Your task to perform on an android device: turn notification dots on Image 0: 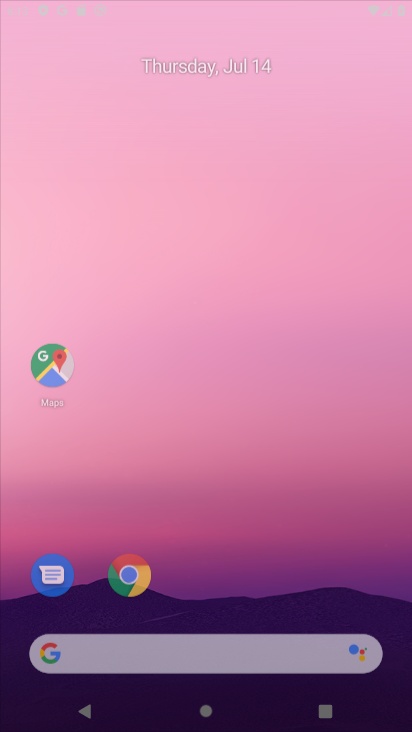
Step 0: click (270, 288)
Your task to perform on an android device: turn notification dots on Image 1: 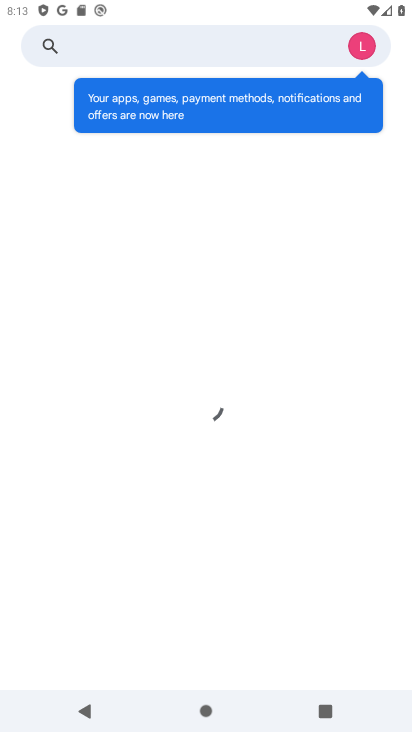
Step 1: press home button
Your task to perform on an android device: turn notification dots on Image 2: 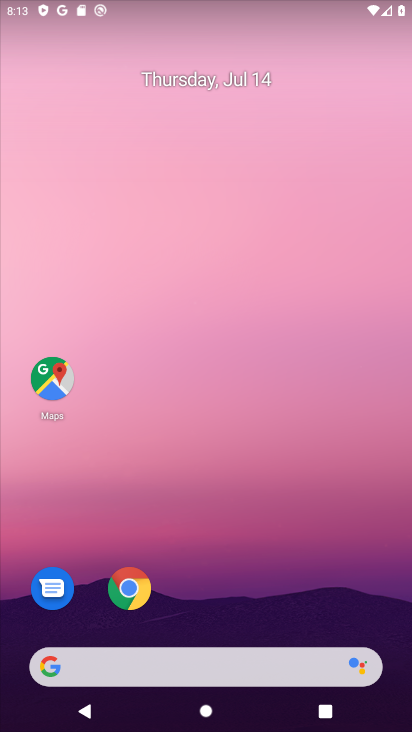
Step 2: drag from (261, 670) to (166, 59)
Your task to perform on an android device: turn notification dots on Image 3: 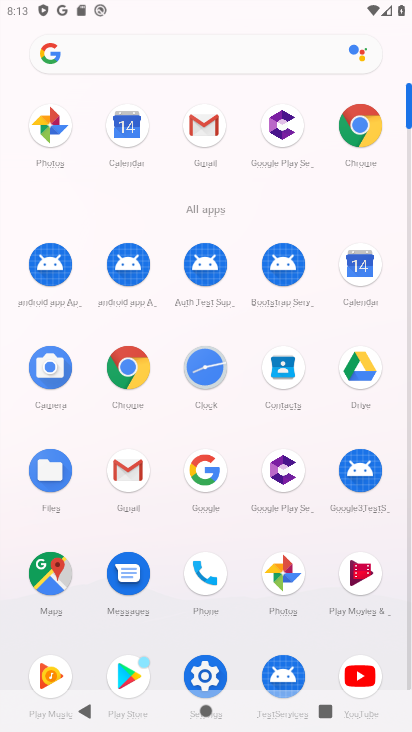
Step 3: click (207, 673)
Your task to perform on an android device: turn notification dots on Image 4: 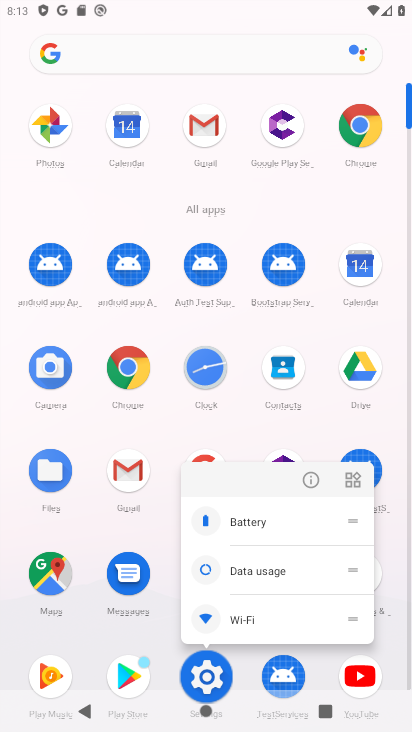
Step 4: click (207, 673)
Your task to perform on an android device: turn notification dots on Image 5: 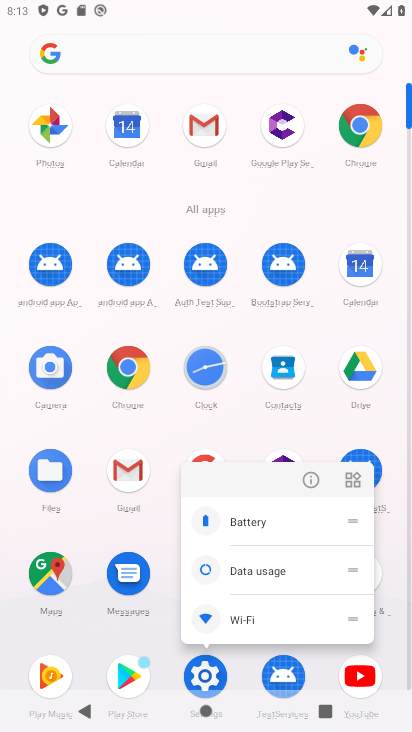
Step 5: click (205, 667)
Your task to perform on an android device: turn notification dots on Image 6: 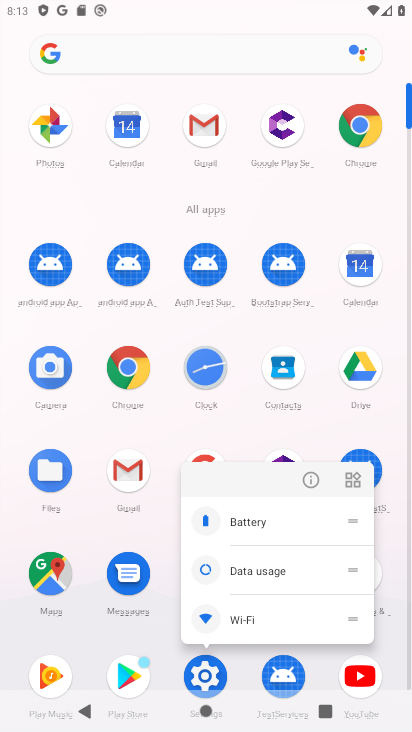
Step 6: click (202, 667)
Your task to perform on an android device: turn notification dots on Image 7: 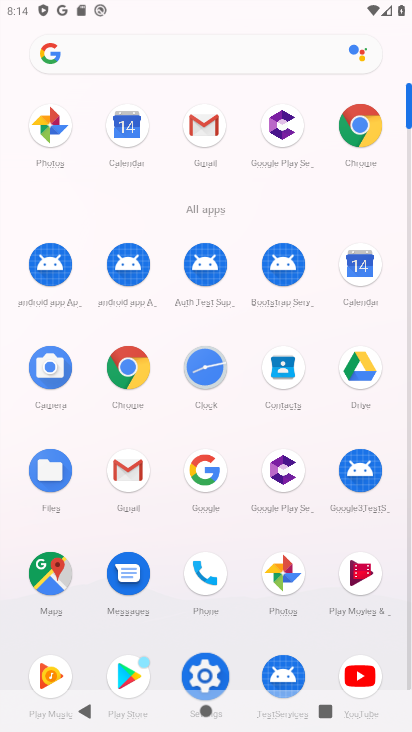
Step 7: click (202, 667)
Your task to perform on an android device: turn notification dots on Image 8: 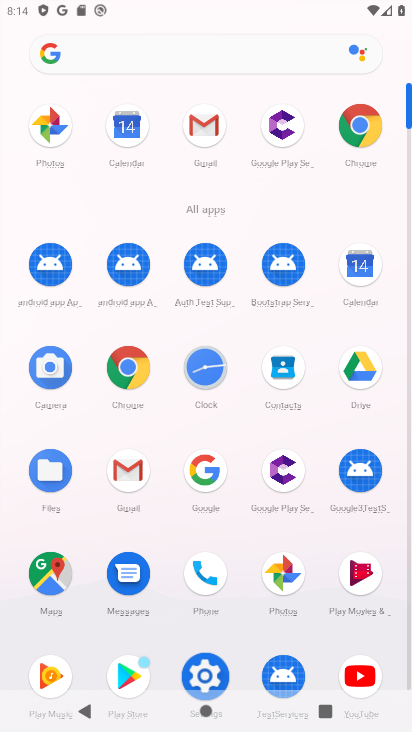
Step 8: click (203, 659)
Your task to perform on an android device: turn notification dots on Image 9: 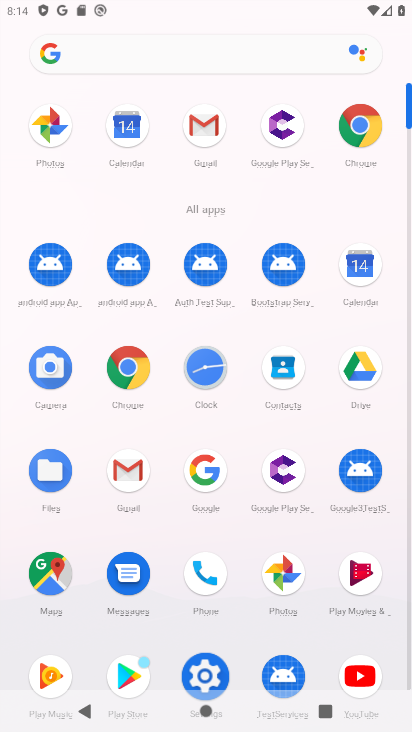
Step 9: click (203, 658)
Your task to perform on an android device: turn notification dots on Image 10: 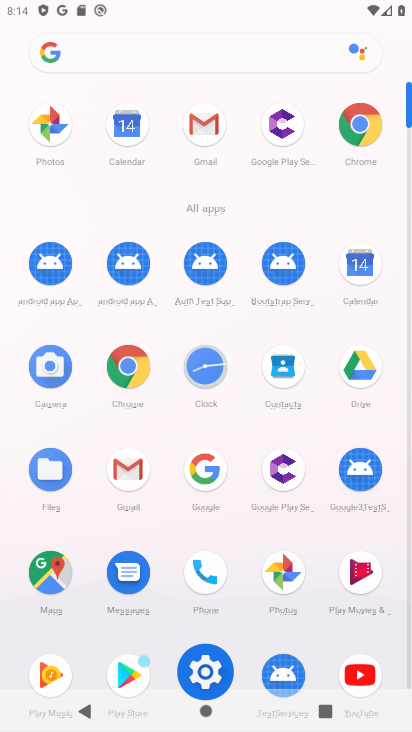
Step 10: click (203, 662)
Your task to perform on an android device: turn notification dots on Image 11: 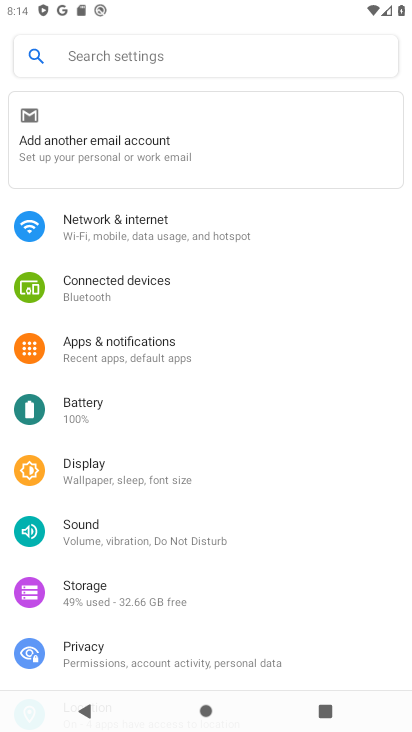
Step 11: click (109, 352)
Your task to perform on an android device: turn notification dots on Image 12: 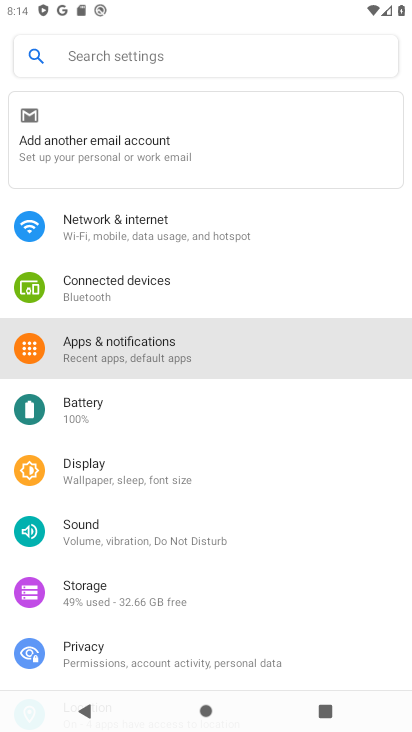
Step 12: click (119, 343)
Your task to perform on an android device: turn notification dots on Image 13: 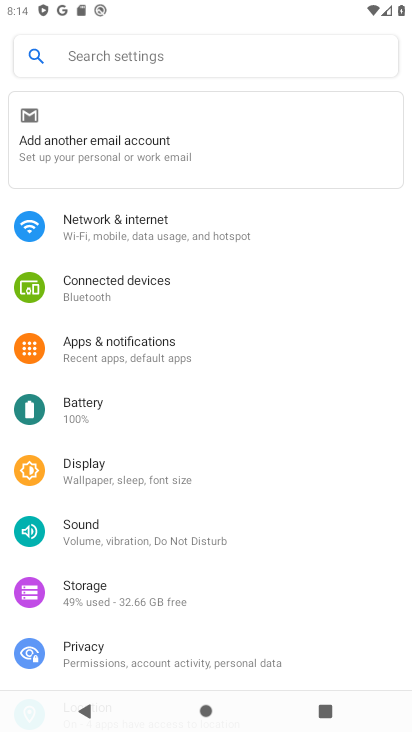
Step 13: click (127, 341)
Your task to perform on an android device: turn notification dots on Image 14: 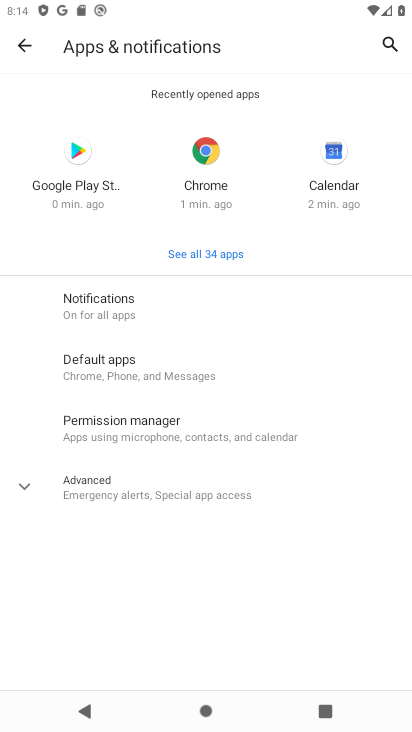
Step 14: click (88, 305)
Your task to perform on an android device: turn notification dots on Image 15: 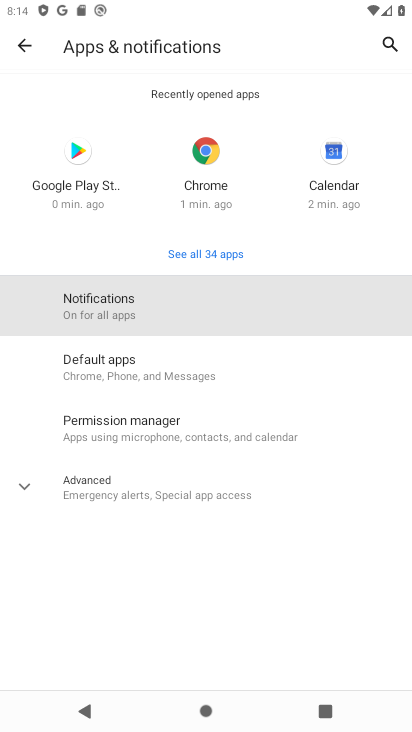
Step 15: click (101, 302)
Your task to perform on an android device: turn notification dots on Image 16: 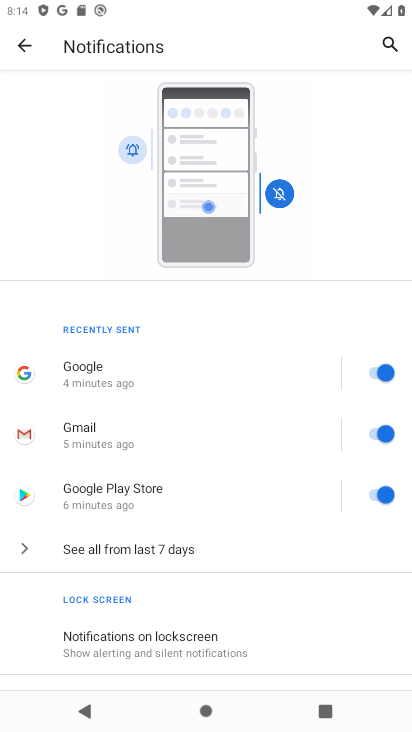
Step 16: drag from (150, 634) to (122, 205)
Your task to perform on an android device: turn notification dots on Image 17: 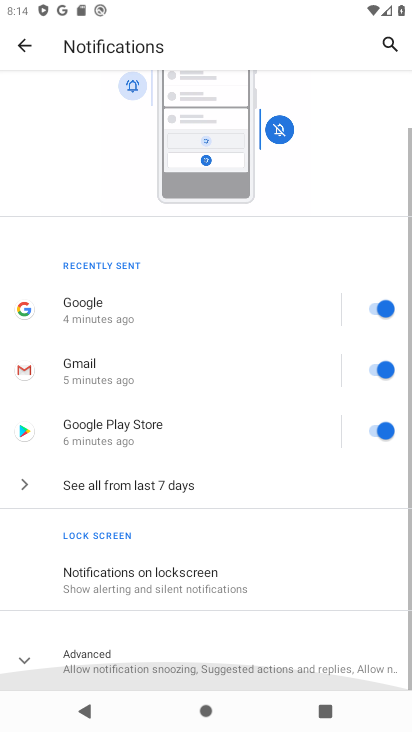
Step 17: drag from (231, 479) to (201, 215)
Your task to perform on an android device: turn notification dots on Image 18: 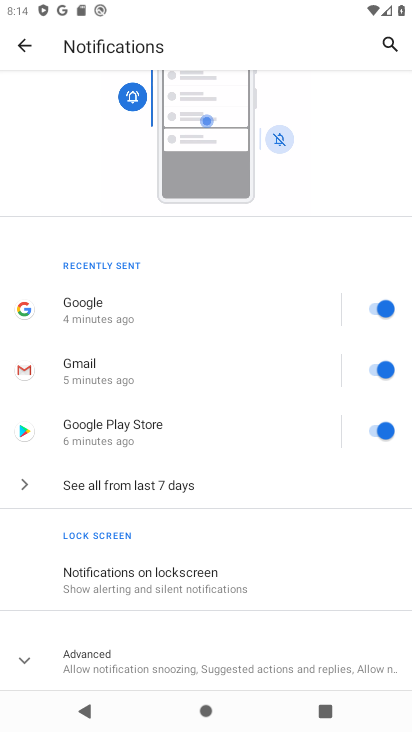
Step 18: click (92, 659)
Your task to perform on an android device: turn notification dots on Image 19: 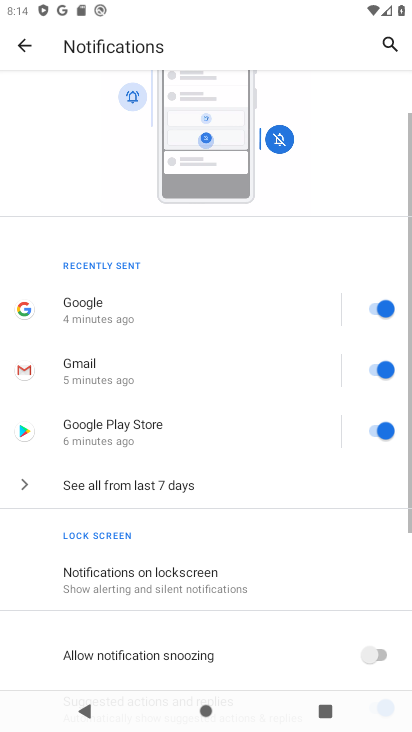
Step 19: task complete